Your task to perform on an android device: toggle priority inbox in the gmail app Image 0: 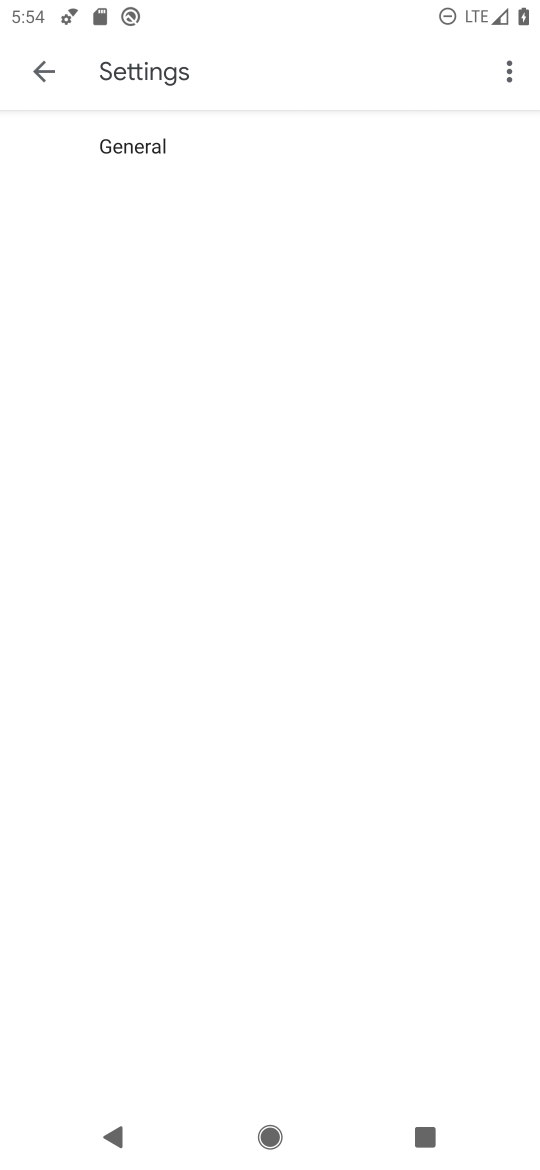
Step 0: press home button
Your task to perform on an android device: toggle priority inbox in the gmail app Image 1: 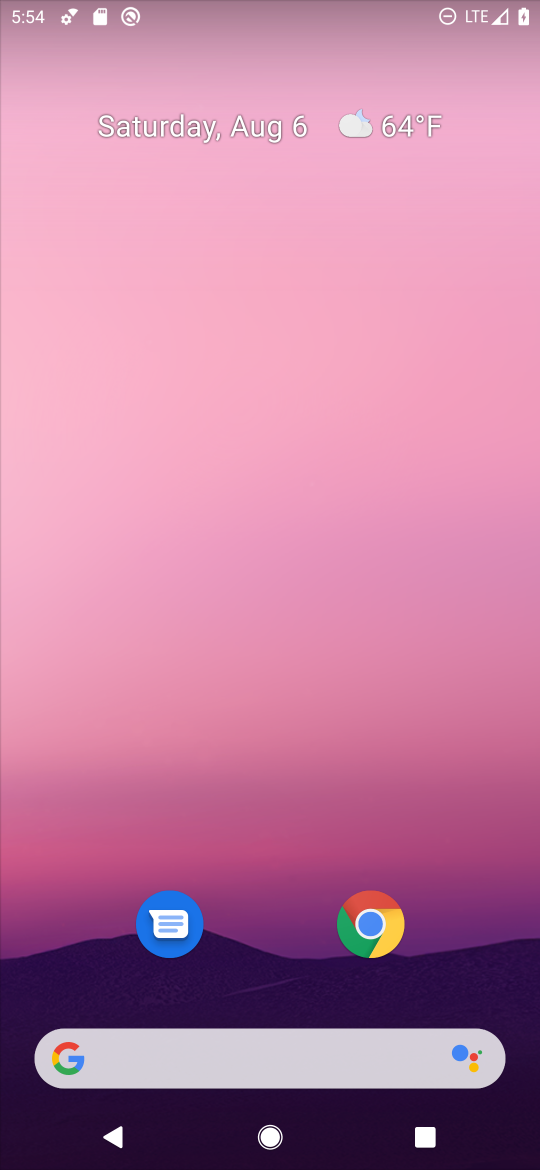
Step 1: drag from (291, 883) to (281, 132)
Your task to perform on an android device: toggle priority inbox in the gmail app Image 2: 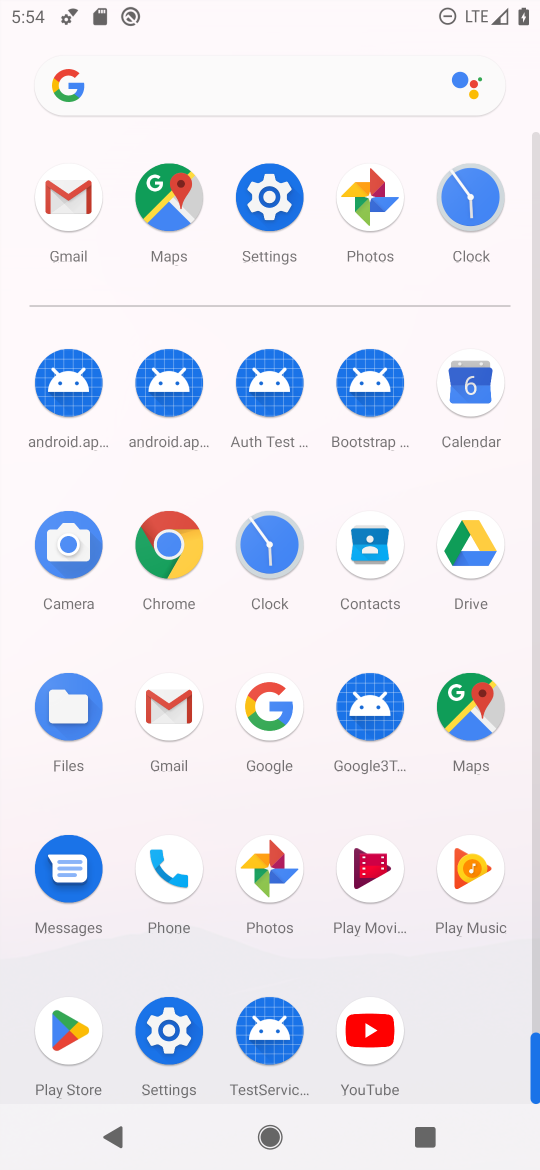
Step 2: click (166, 699)
Your task to perform on an android device: toggle priority inbox in the gmail app Image 3: 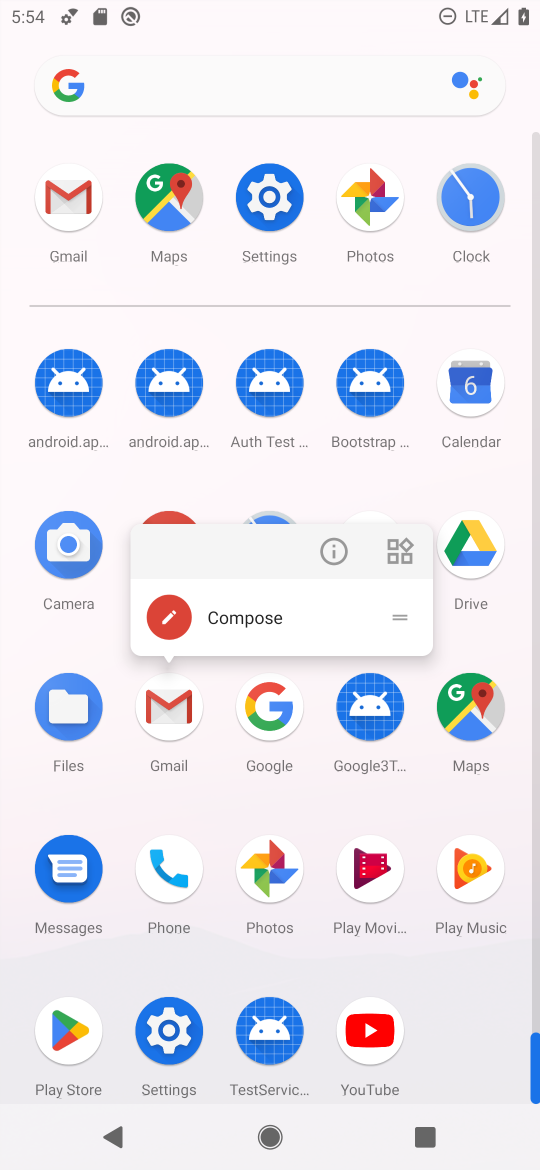
Step 3: click (169, 704)
Your task to perform on an android device: toggle priority inbox in the gmail app Image 4: 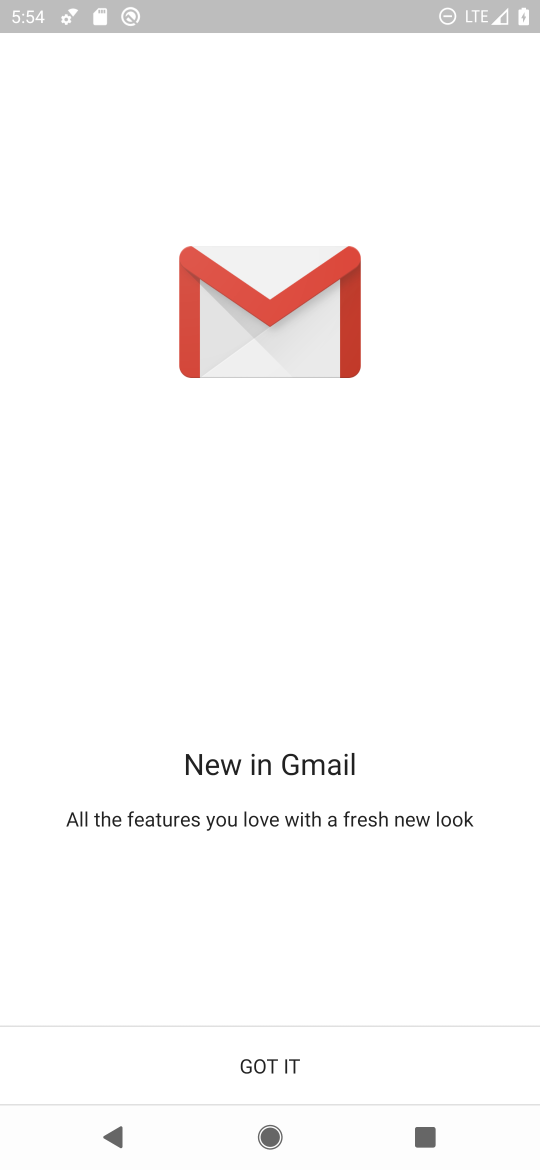
Step 4: click (264, 1063)
Your task to perform on an android device: toggle priority inbox in the gmail app Image 5: 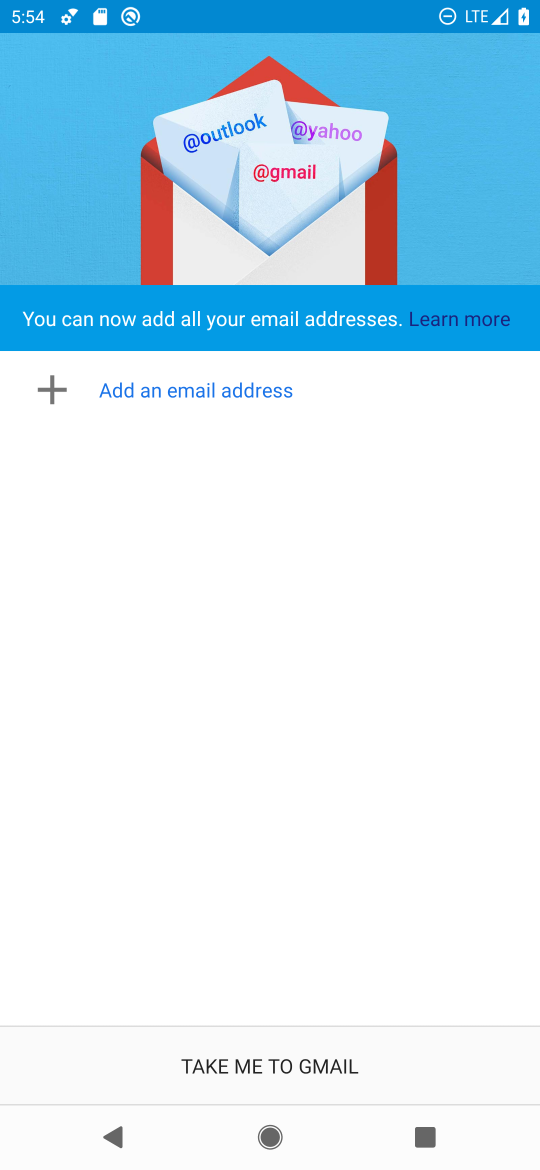
Step 5: task complete